Your task to perform on an android device: toggle sleep mode Image 0: 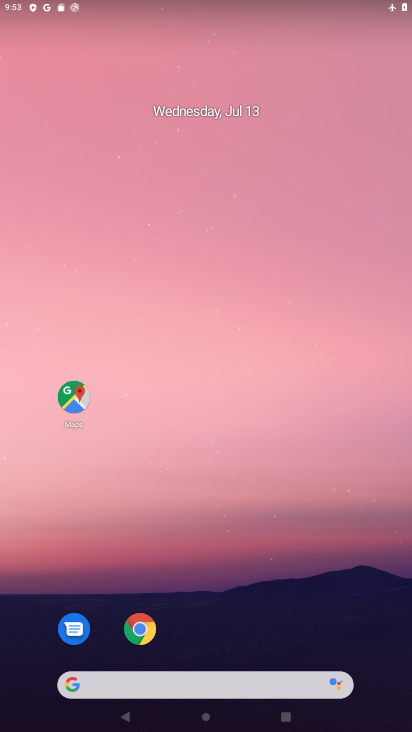
Step 0: drag from (283, 621) to (274, 45)
Your task to perform on an android device: toggle sleep mode Image 1: 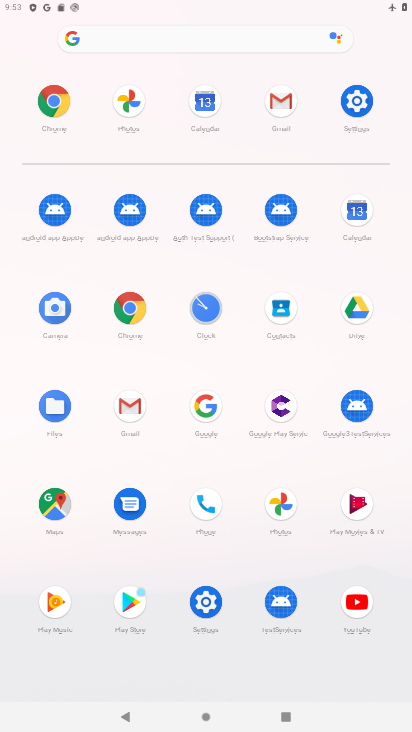
Step 1: click (341, 111)
Your task to perform on an android device: toggle sleep mode Image 2: 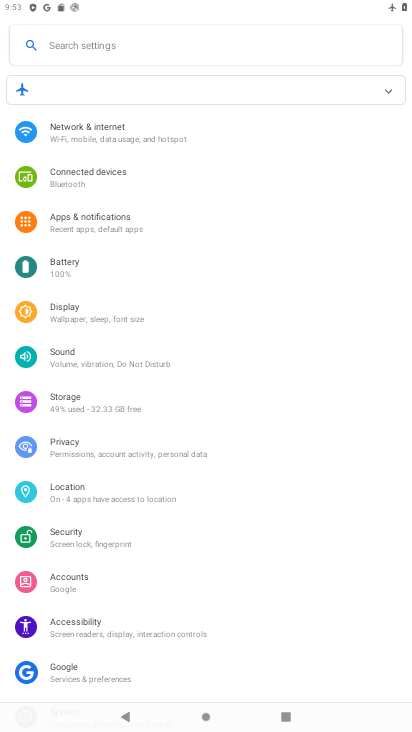
Step 2: click (160, 313)
Your task to perform on an android device: toggle sleep mode Image 3: 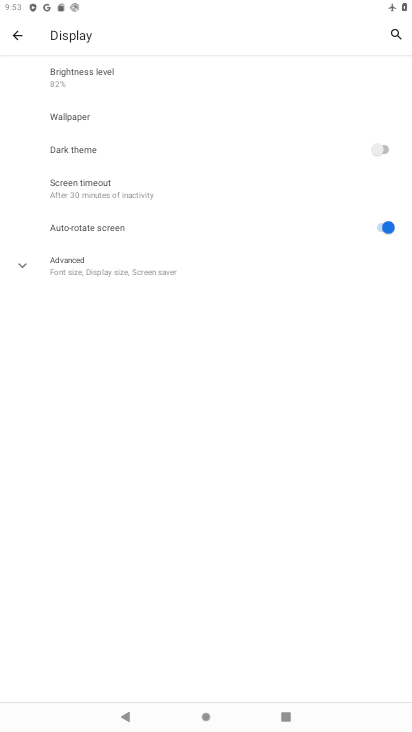
Step 3: click (274, 257)
Your task to perform on an android device: toggle sleep mode Image 4: 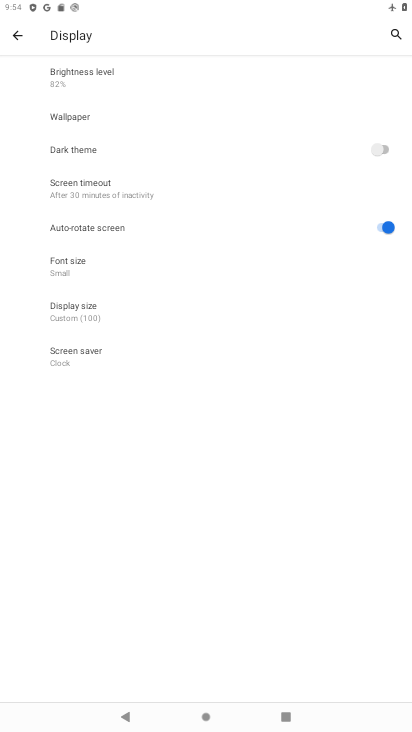
Step 4: click (137, 269)
Your task to perform on an android device: toggle sleep mode Image 5: 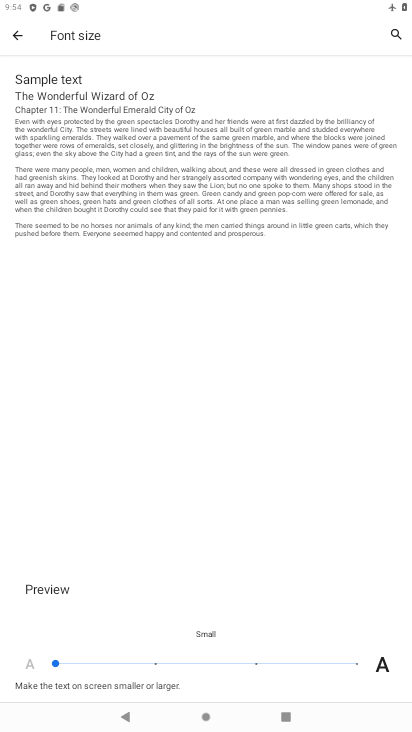
Step 5: click (310, 657)
Your task to perform on an android device: toggle sleep mode Image 6: 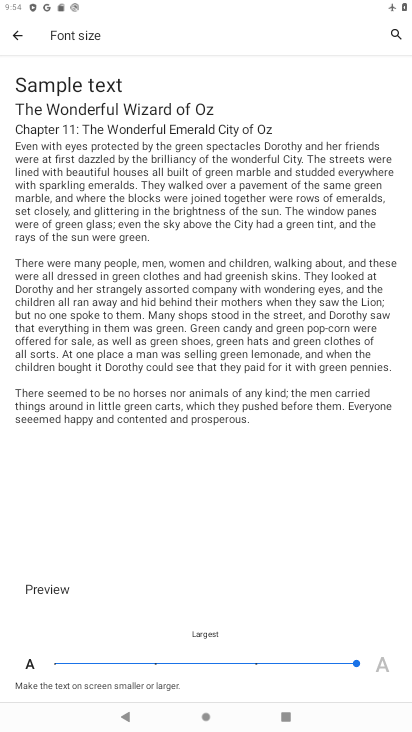
Step 6: task complete